Your task to perform on an android device: turn on the 24-hour format for clock Image 0: 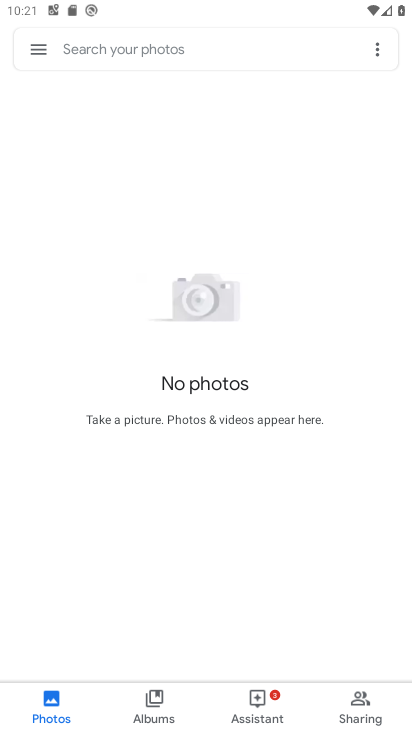
Step 0: press home button
Your task to perform on an android device: turn on the 24-hour format for clock Image 1: 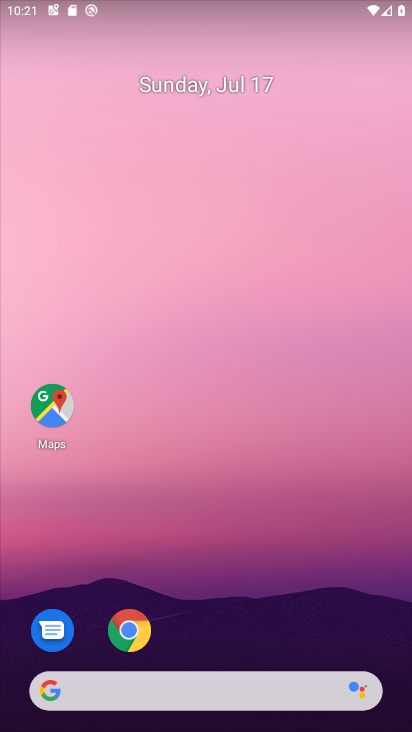
Step 1: drag from (258, 589) to (295, 16)
Your task to perform on an android device: turn on the 24-hour format for clock Image 2: 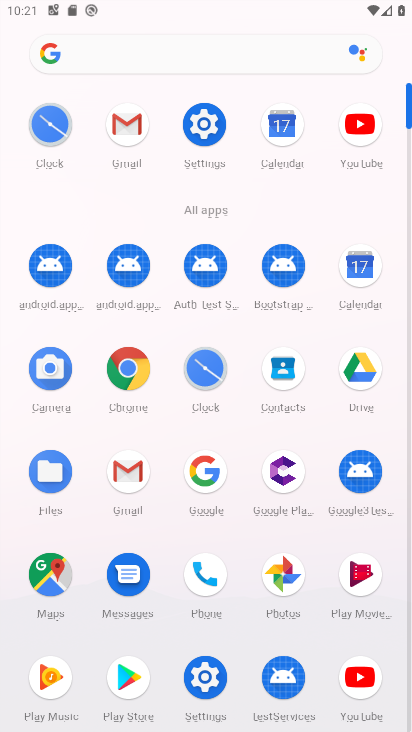
Step 2: click (45, 133)
Your task to perform on an android device: turn on the 24-hour format for clock Image 3: 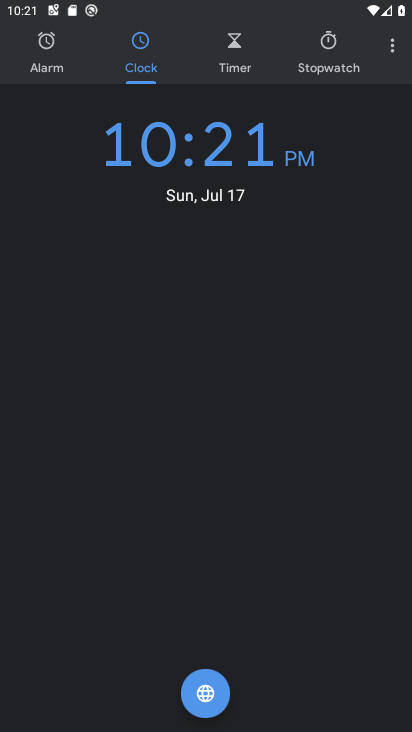
Step 3: click (393, 51)
Your task to perform on an android device: turn on the 24-hour format for clock Image 4: 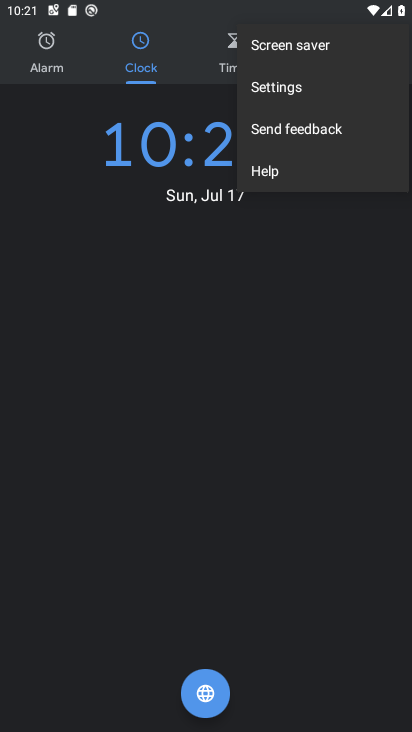
Step 4: click (343, 86)
Your task to perform on an android device: turn on the 24-hour format for clock Image 5: 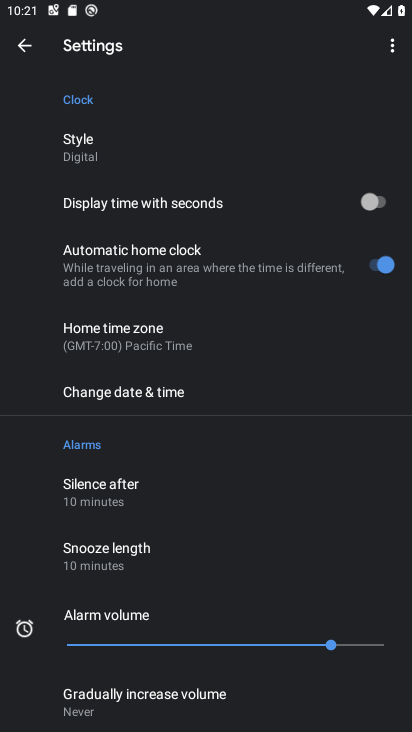
Step 5: click (195, 394)
Your task to perform on an android device: turn on the 24-hour format for clock Image 6: 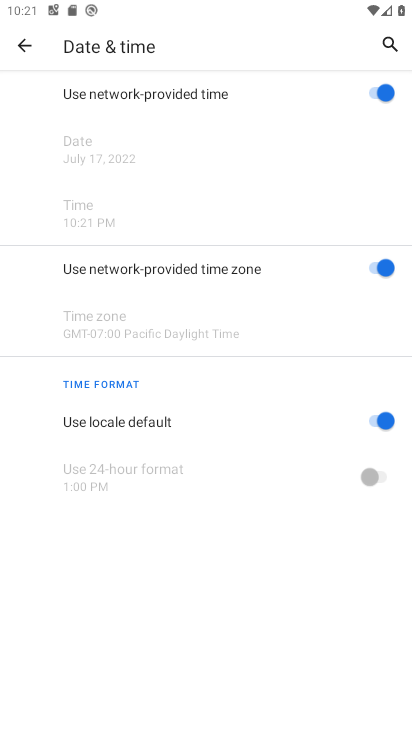
Step 6: click (381, 425)
Your task to perform on an android device: turn on the 24-hour format for clock Image 7: 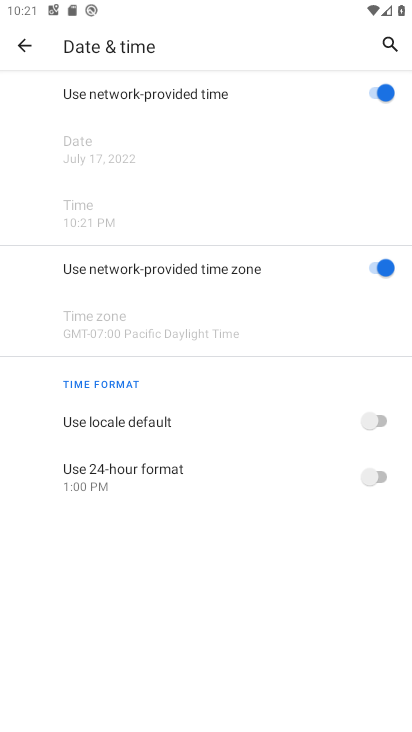
Step 7: click (378, 473)
Your task to perform on an android device: turn on the 24-hour format for clock Image 8: 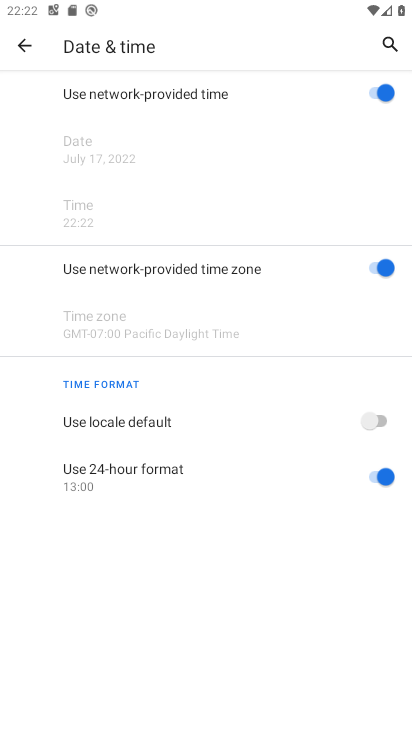
Step 8: task complete